Your task to perform on an android device: turn on improve location accuracy Image 0: 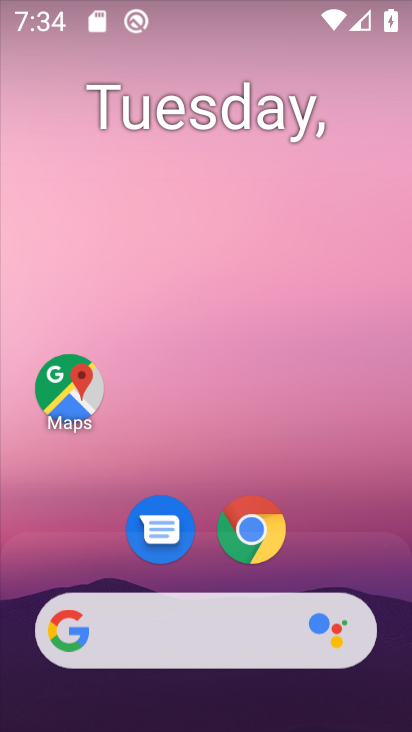
Step 0: drag from (225, 328) to (261, 120)
Your task to perform on an android device: turn on improve location accuracy Image 1: 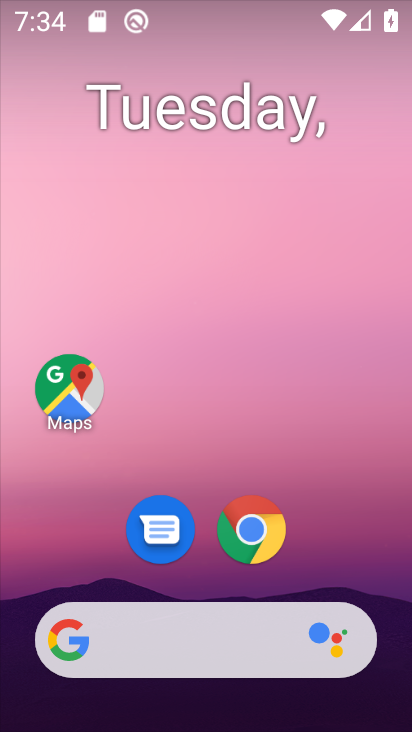
Step 1: drag from (208, 380) to (252, 45)
Your task to perform on an android device: turn on improve location accuracy Image 2: 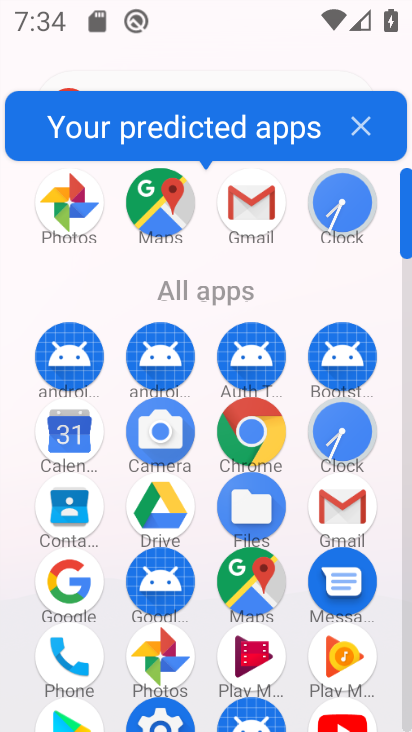
Step 2: click (175, 714)
Your task to perform on an android device: turn on improve location accuracy Image 3: 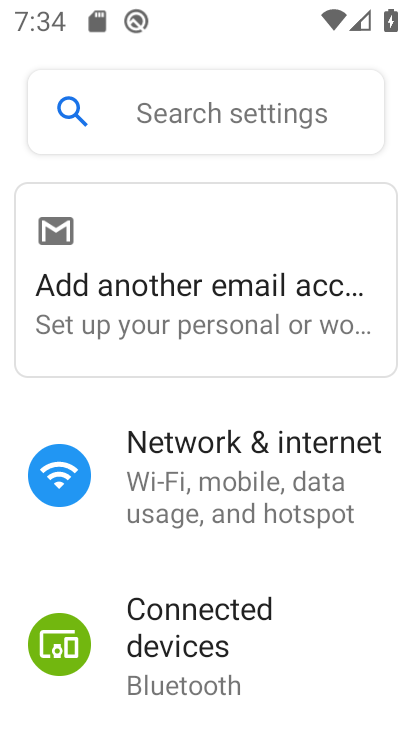
Step 3: drag from (240, 670) to (264, 269)
Your task to perform on an android device: turn on improve location accuracy Image 4: 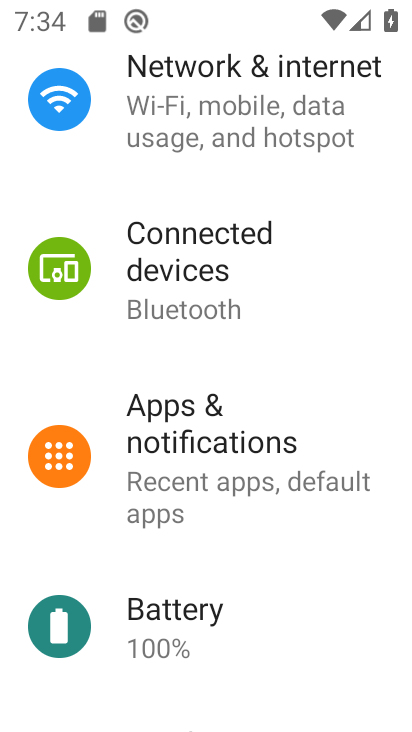
Step 4: drag from (211, 626) to (283, 249)
Your task to perform on an android device: turn on improve location accuracy Image 5: 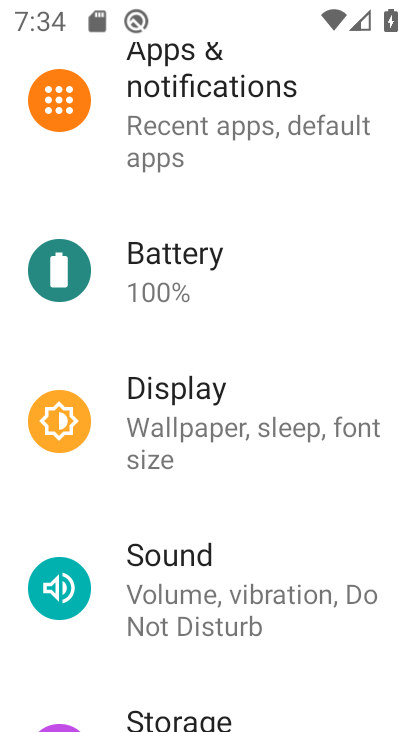
Step 5: drag from (228, 629) to (305, 161)
Your task to perform on an android device: turn on improve location accuracy Image 6: 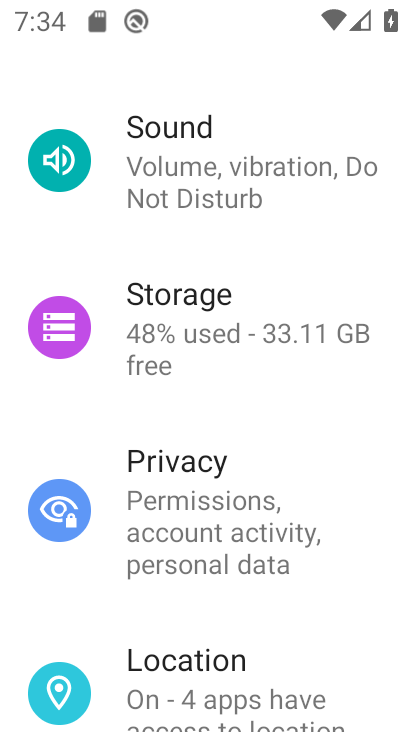
Step 6: click (193, 655)
Your task to perform on an android device: turn on improve location accuracy Image 7: 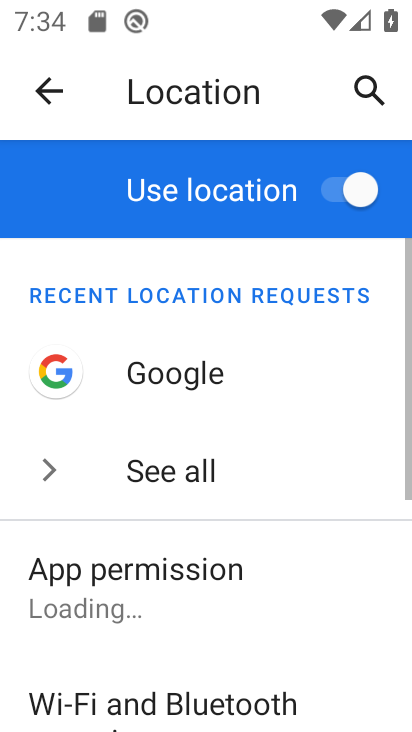
Step 7: drag from (223, 637) to (310, 133)
Your task to perform on an android device: turn on improve location accuracy Image 8: 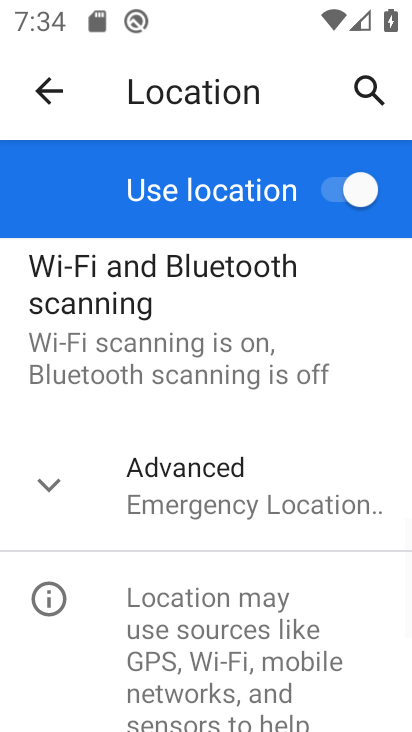
Step 8: click (174, 515)
Your task to perform on an android device: turn on improve location accuracy Image 9: 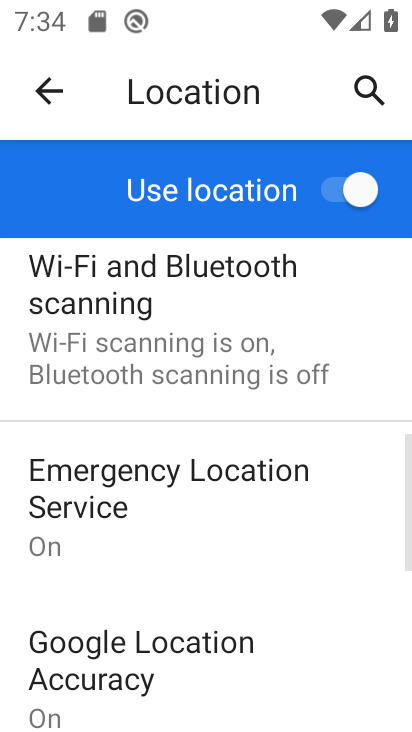
Step 9: click (172, 690)
Your task to perform on an android device: turn on improve location accuracy Image 10: 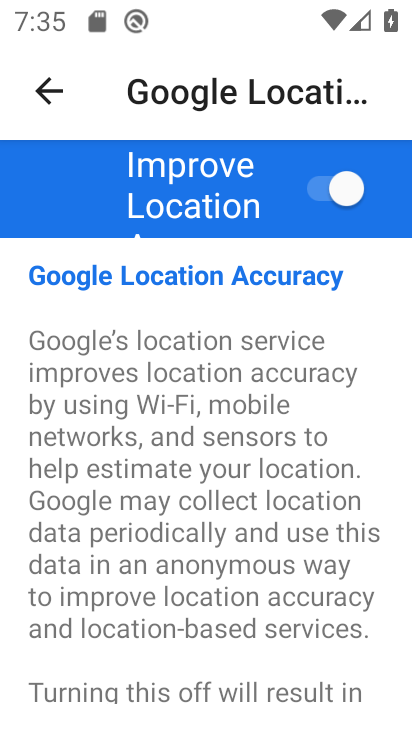
Step 10: task complete